Your task to perform on an android device: What's the weather going to be tomorrow? Image 0: 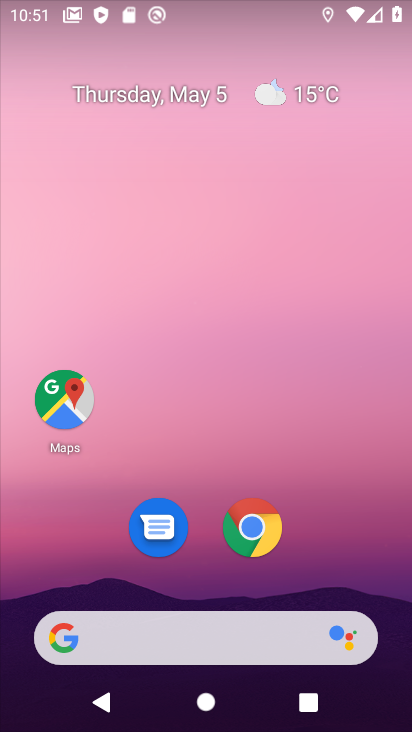
Step 0: click (196, 629)
Your task to perform on an android device: What's the weather going to be tomorrow? Image 1: 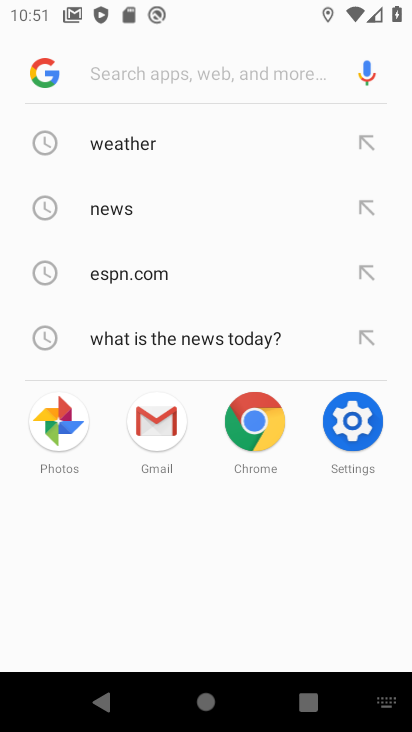
Step 1: click (137, 158)
Your task to perform on an android device: What's the weather going to be tomorrow? Image 2: 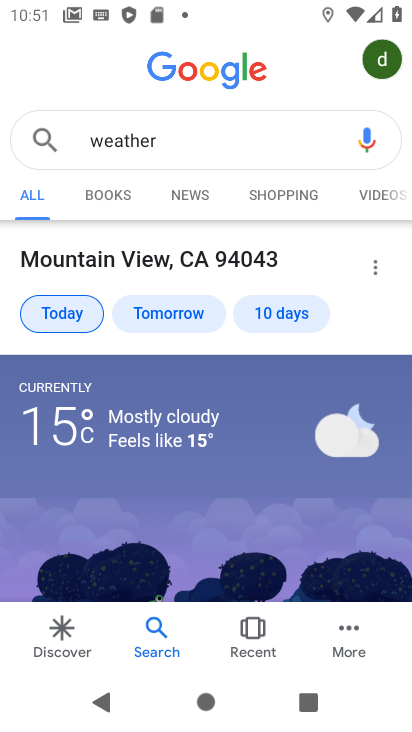
Step 2: click (162, 299)
Your task to perform on an android device: What's the weather going to be tomorrow? Image 3: 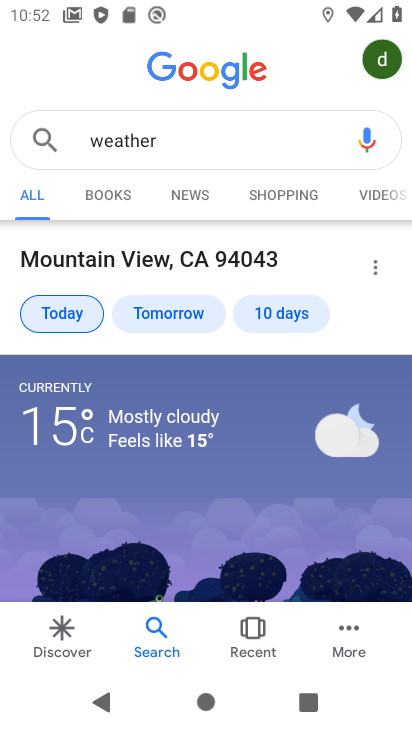
Step 3: click (160, 310)
Your task to perform on an android device: What's the weather going to be tomorrow? Image 4: 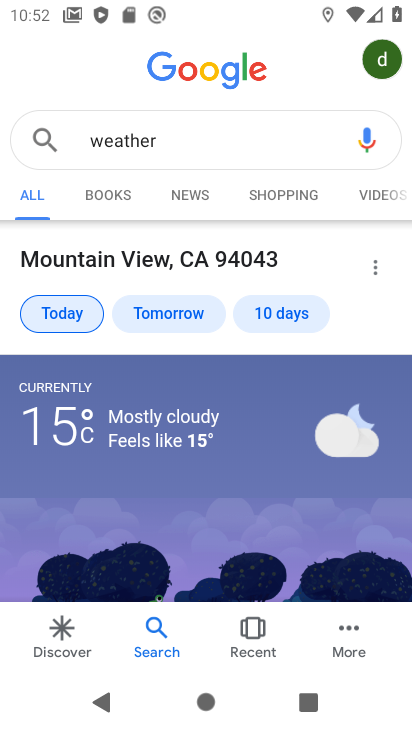
Step 4: click (160, 311)
Your task to perform on an android device: What's the weather going to be tomorrow? Image 5: 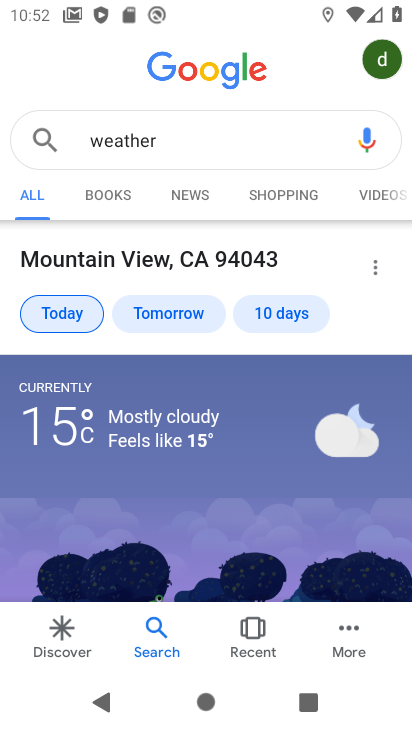
Step 5: click (160, 314)
Your task to perform on an android device: What's the weather going to be tomorrow? Image 6: 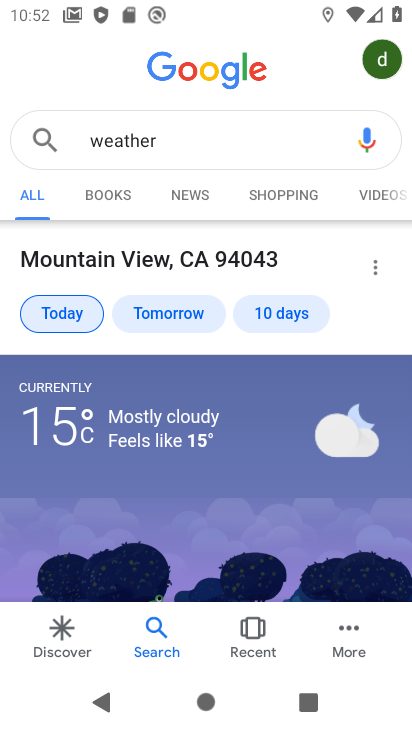
Step 6: drag from (166, 493) to (220, 221)
Your task to perform on an android device: What's the weather going to be tomorrow? Image 7: 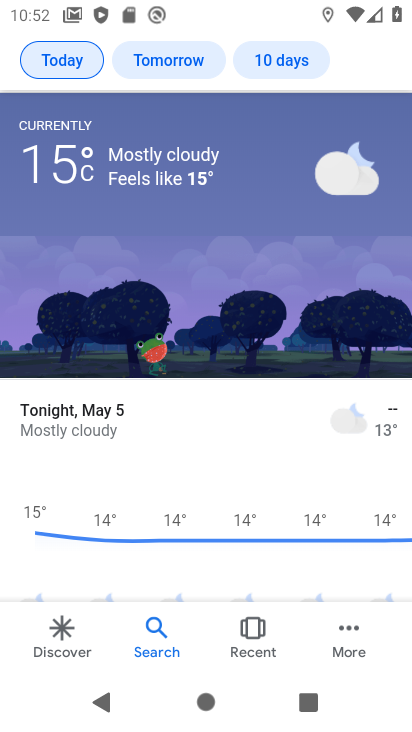
Step 7: drag from (217, 238) to (215, 464)
Your task to perform on an android device: What's the weather going to be tomorrow? Image 8: 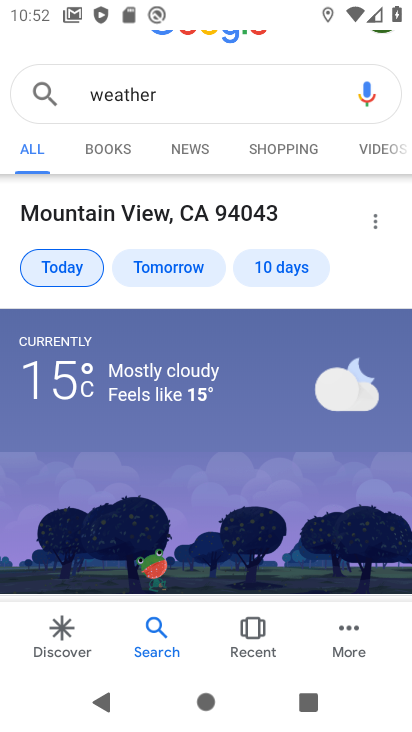
Step 8: click (179, 275)
Your task to perform on an android device: What's the weather going to be tomorrow? Image 9: 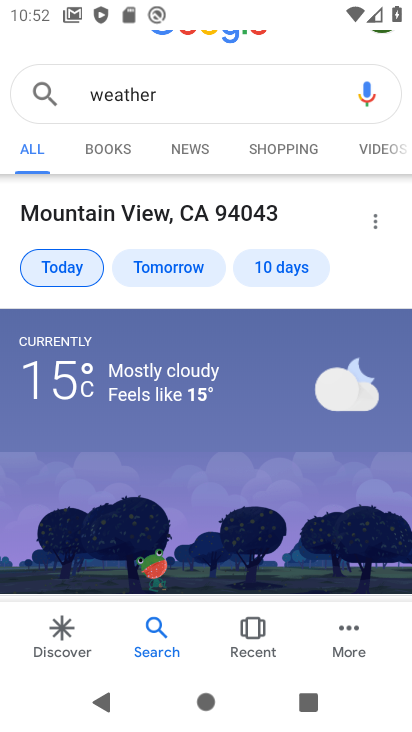
Step 9: click (179, 275)
Your task to perform on an android device: What's the weather going to be tomorrow? Image 10: 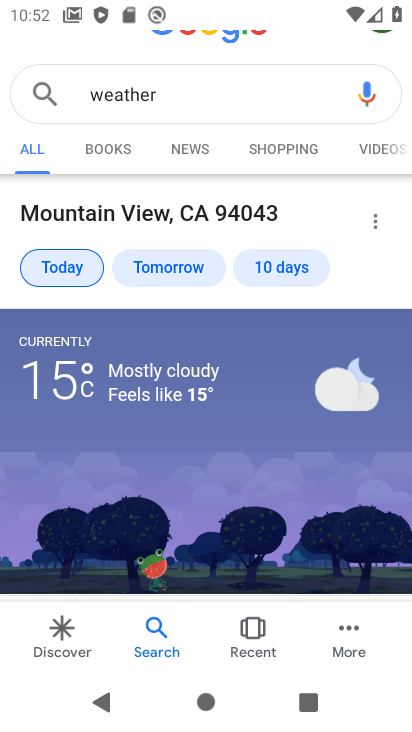
Step 10: click (179, 274)
Your task to perform on an android device: What's the weather going to be tomorrow? Image 11: 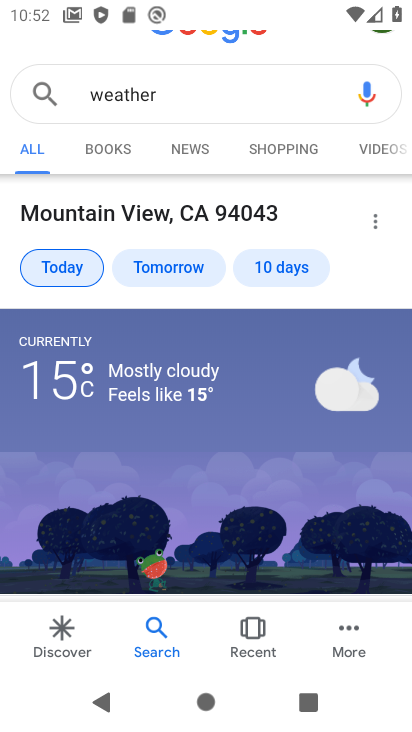
Step 11: click (181, 274)
Your task to perform on an android device: What's the weather going to be tomorrow? Image 12: 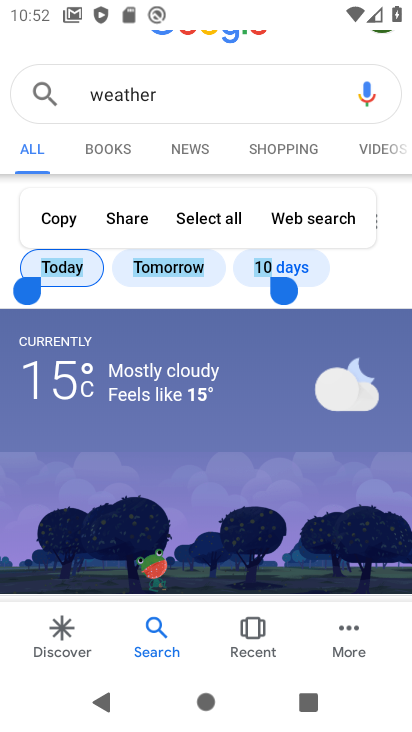
Step 12: drag from (177, 448) to (190, 330)
Your task to perform on an android device: What's the weather going to be tomorrow? Image 13: 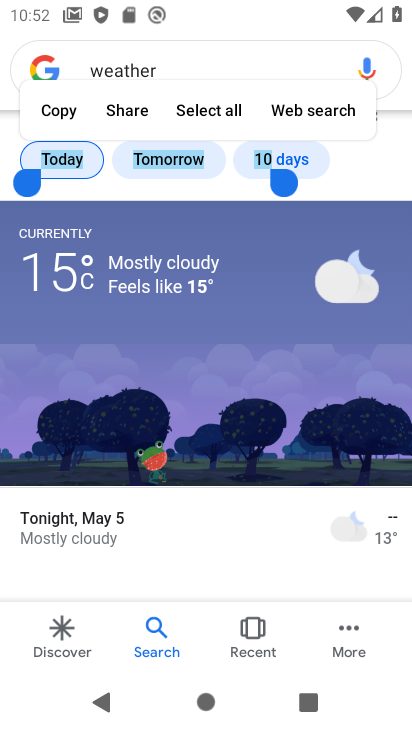
Step 13: click (176, 358)
Your task to perform on an android device: What's the weather going to be tomorrow? Image 14: 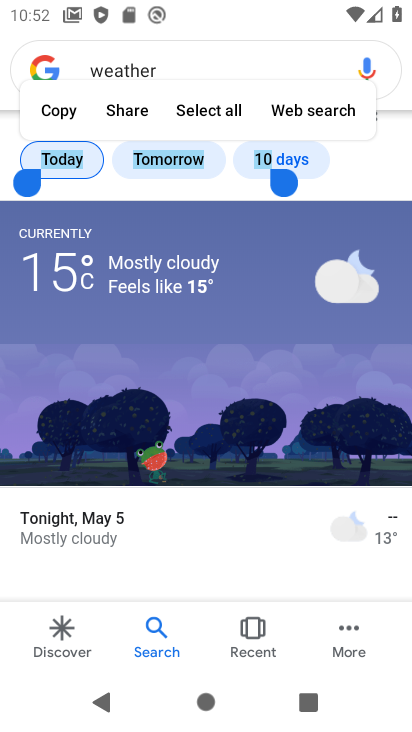
Step 14: drag from (198, 548) to (218, 370)
Your task to perform on an android device: What's the weather going to be tomorrow? Image 15: 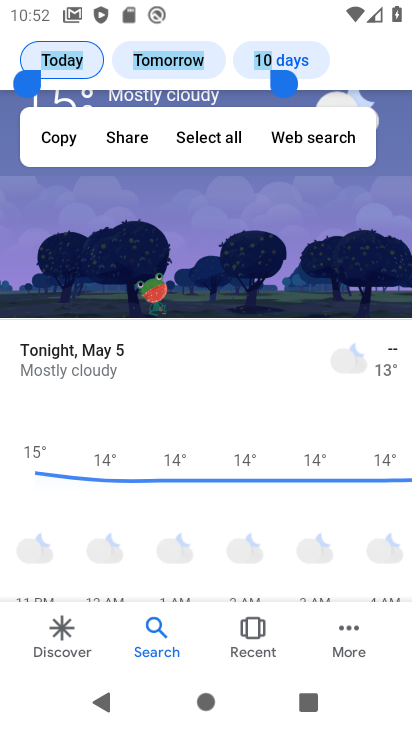
Step 15: drag from (220, 228) to (213, 525)
Your task to perform on an android device: What's the weather going to be tomorrow? Image 16: 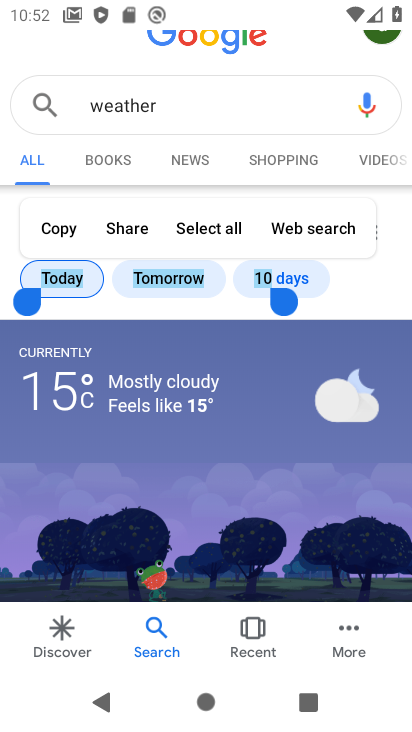
Step 16: click (182, 276)
Your task to perform on an android device: What's the weather going to be tomorrow? Image 17: 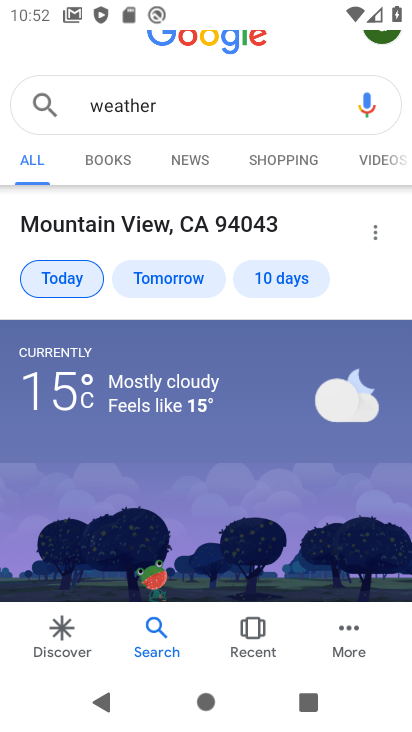
Step 17: task complete